Your task to perform on an android device: Do I have any events this weekend? Image 0: 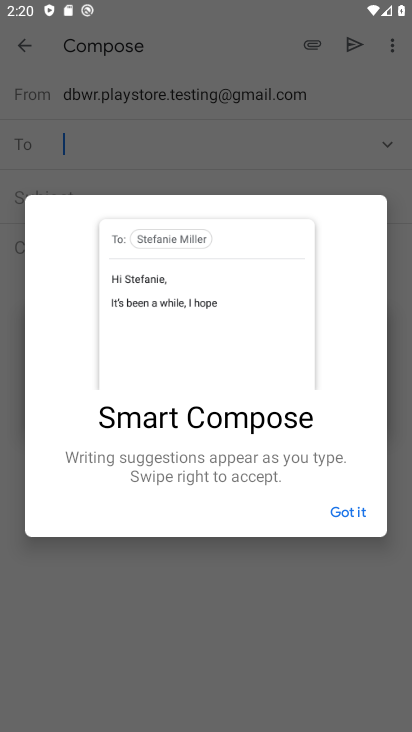
Step 0: press home button
Your task to perform on an android device: Do I have any events this weekend? Image 1: 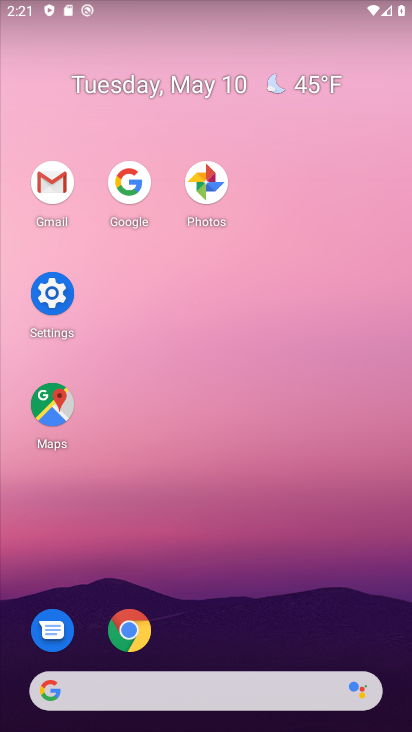
Step 1: drag from (240, 525) to (239, 91)
Your task to perform on an android device: Do I have any events this weekend? Image 2: 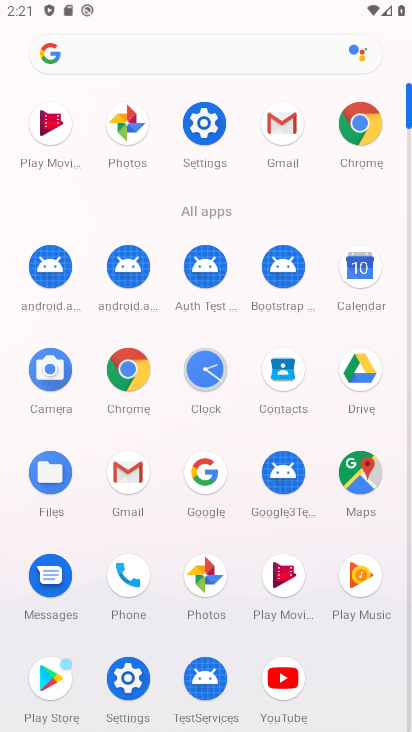
Step 2: drag from (365, 264) to (133, 310)
Your task to perform on an android device: Do I have any events this weekend? Image 3: 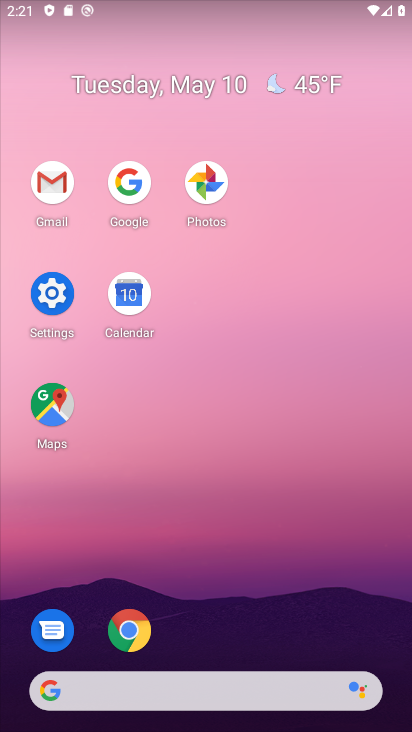
Step 3: click (138, 297)
Your task to perform on an android device: Do I have any events this weekend? Image 4: 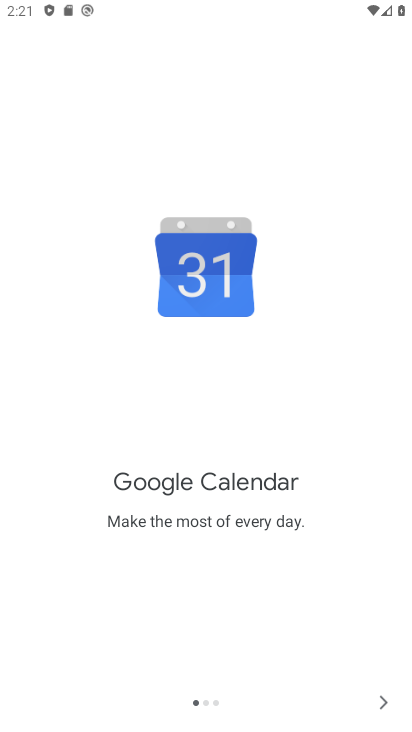
Step 4: click (379, 707)
Your task to perform on an android device: Do I have any events this weekend? Image 5: 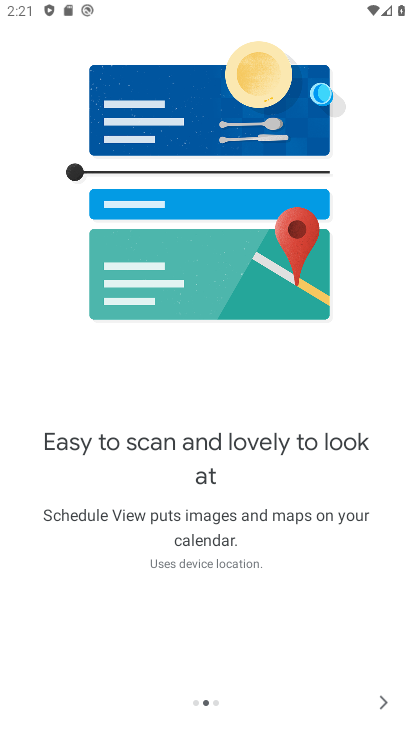
Step 5: click (379, 707)
Your task to perform on an android device: Do I have any events this weekend? Image 6: 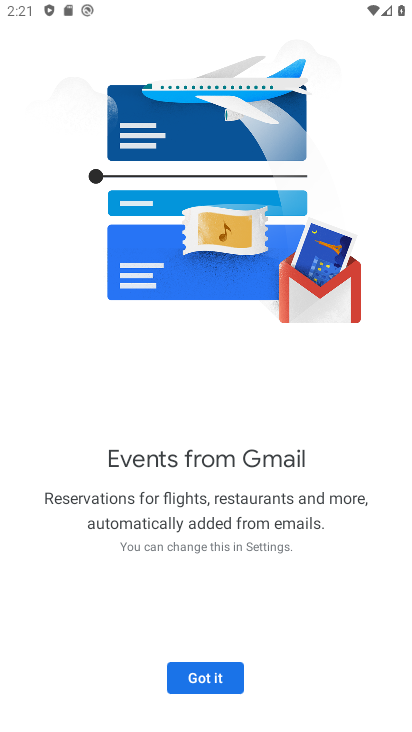
Step 6: click (379, 707)
Your task to perform on an android device: Do I have any events this weekend? Image 7: 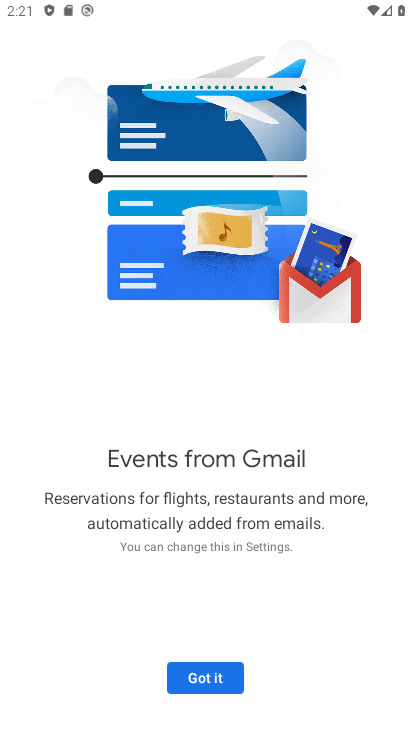
Step 7: click (226, 676)
Your task to perform on an android device: Do I have any events this weekend? Image 8: 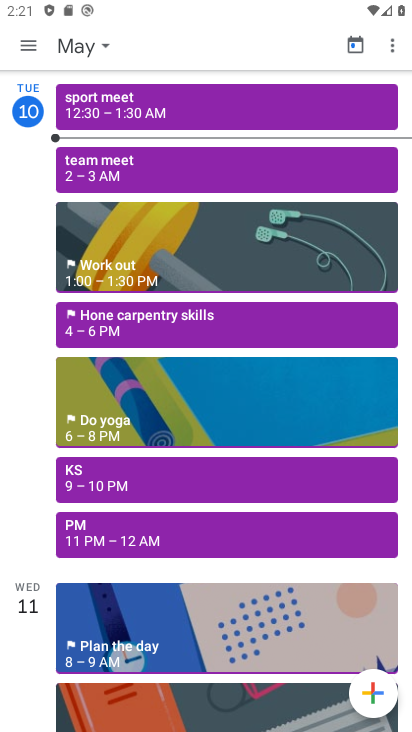
Step 8: click (27, 47)
Your task to perform on an android device: Do I have any events this weekend? Image 9: 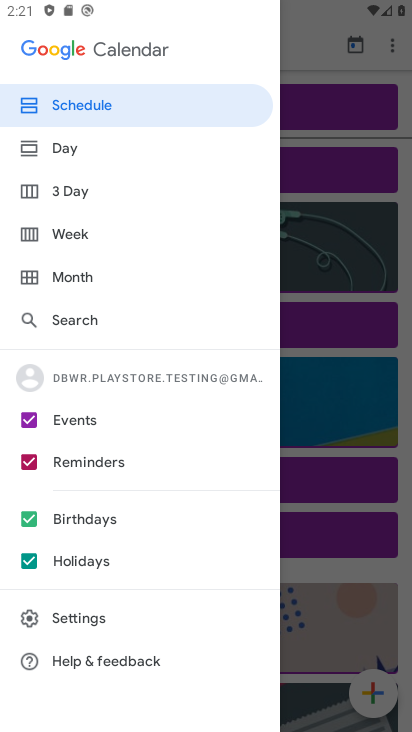
Step 9: click (74, 230)
Your task to perform on an android device: Do I have any events this weekend? Image 10: 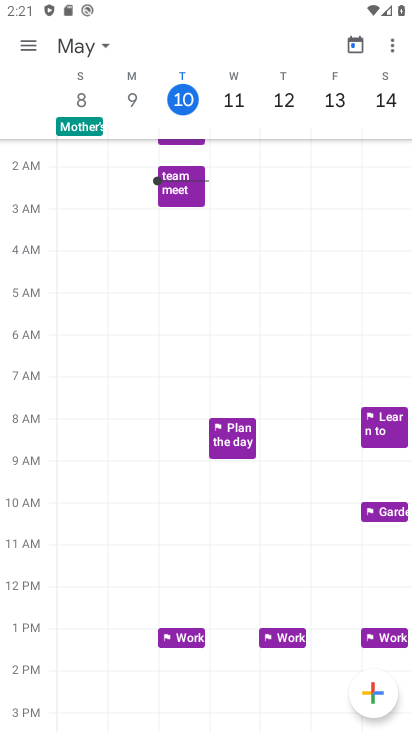
Step 10: click (383, 100)
Your task to perform on an android device: Do I have any events this weekend? Image 11: 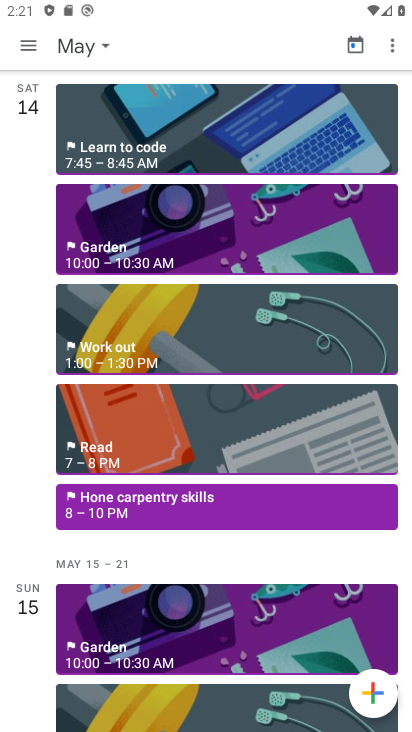
Step 11: task complete